Your task to perform on an android device: delete the emails in spam in the gmail app Image 0: 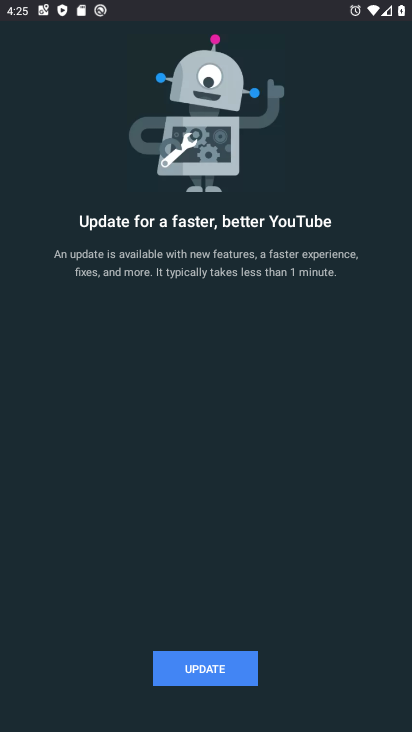
Step 0: press home button
Your task to perform on an android device: delete the emails in spam in the gmail app Image 1: 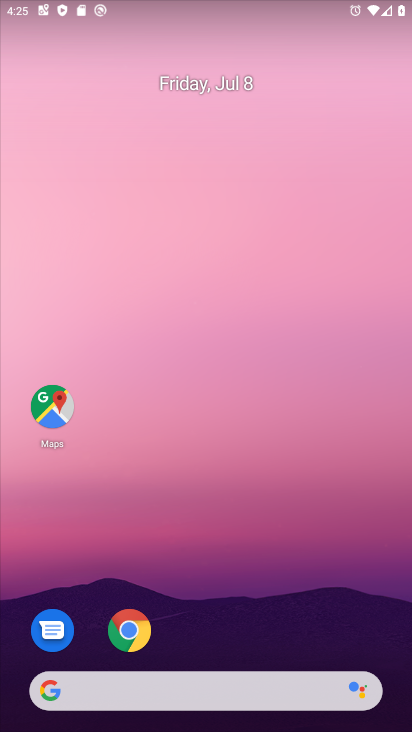
Step 1: drag from (200, 685) to (200, 151)
Your task to perform on an android device: delete the emails in spam in the gmail app Image 2: 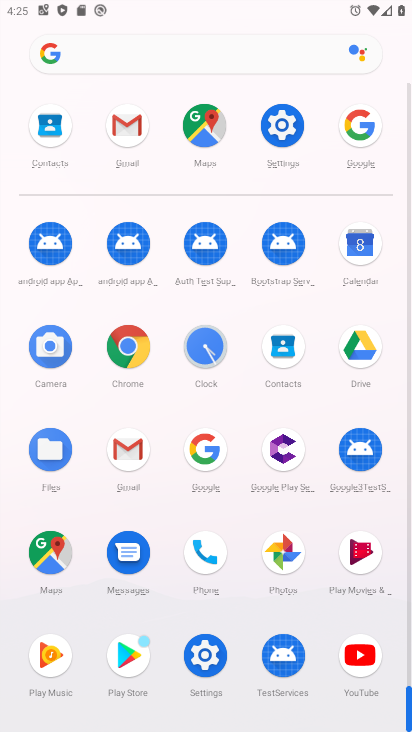
Step 2: click (125, 124)
Your task to perform on an android device: delete the emails in spam in the gmail app Image 3: 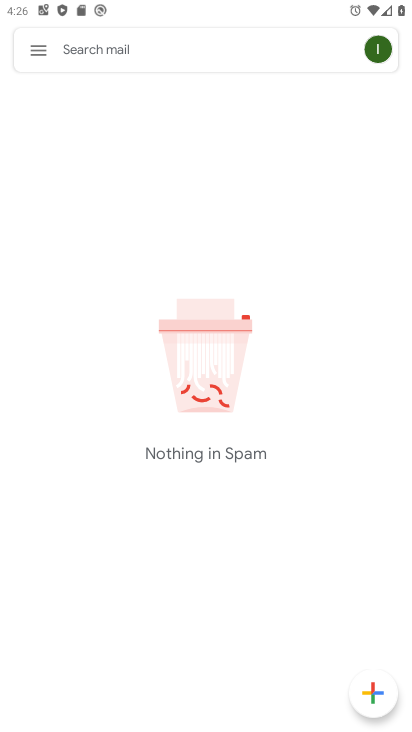
Step 3: task complete